Your task to perform on an android device: Open Wikipedia Image 0: 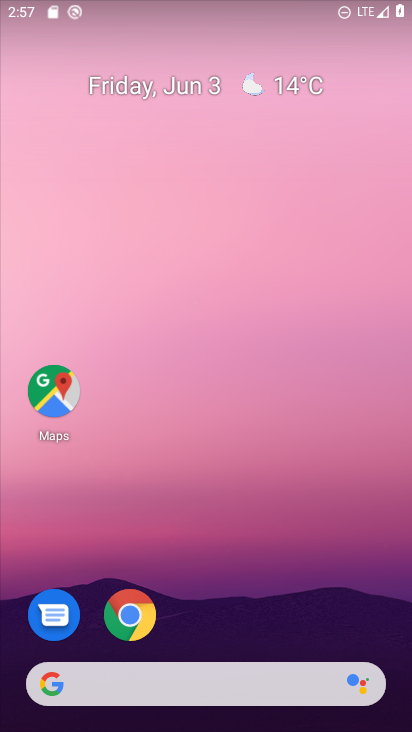
Step 0: drag from (196, 634) to (6, 206)
Your task to perform on an android device: Open Wikipedia Image 1: 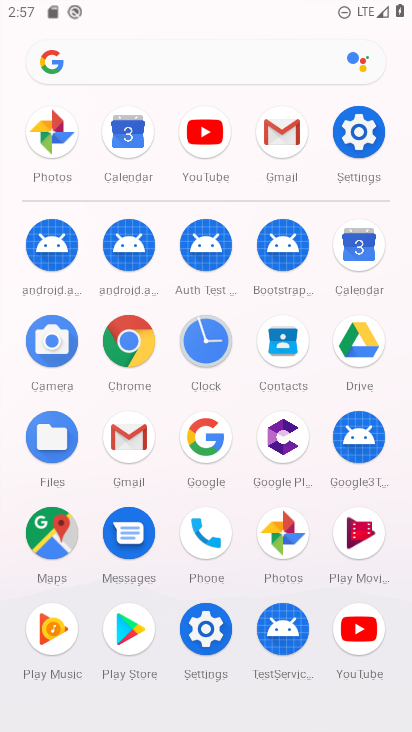
Step 1: click (103, 52)
Your task to perform on an android device: Open Wikipedia Image 2: 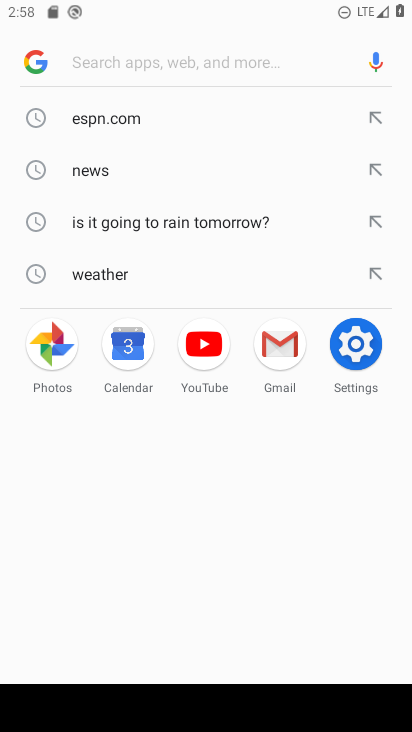
Step 2: type "Wikipedia"
Your task to perform on an android device: Open Wikipedia Image 3: 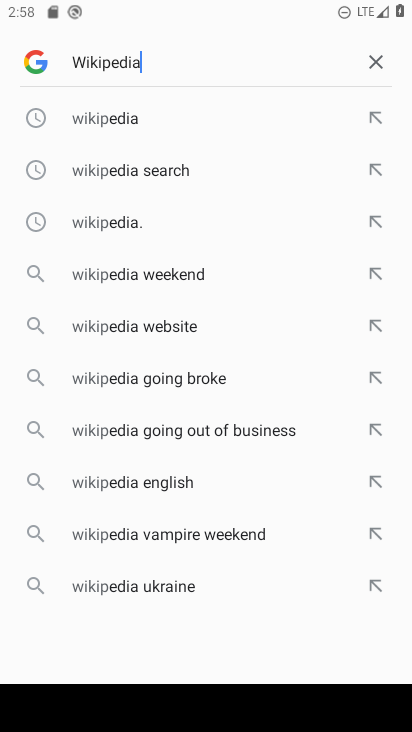
Step 3: type ""
Your task to perform on an android device: Open Wikipedia Image 4: 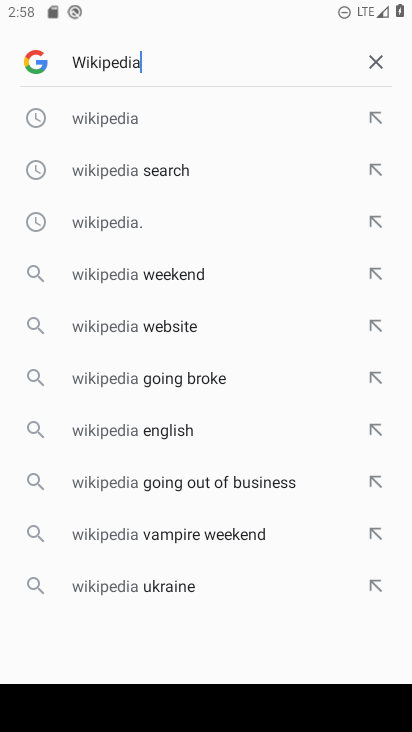
Step 4: click (111, 117)
Your task to perform on an android device: Open Wikipedia Image 5: 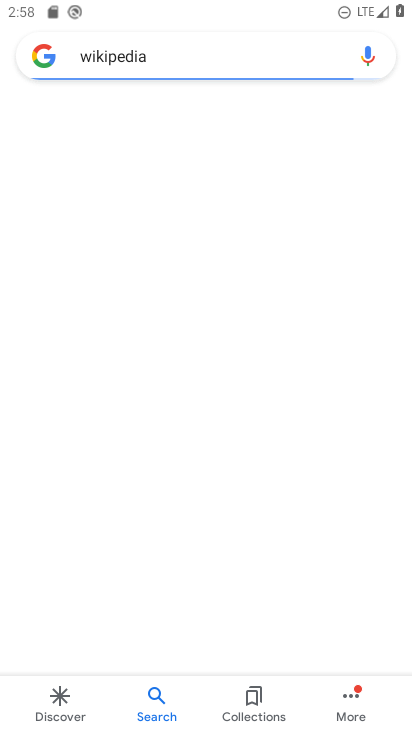
Step 5: drag from (166, 391) to (248, 59)
Your task to perform on an android device: Open Wikipedia Image 6: 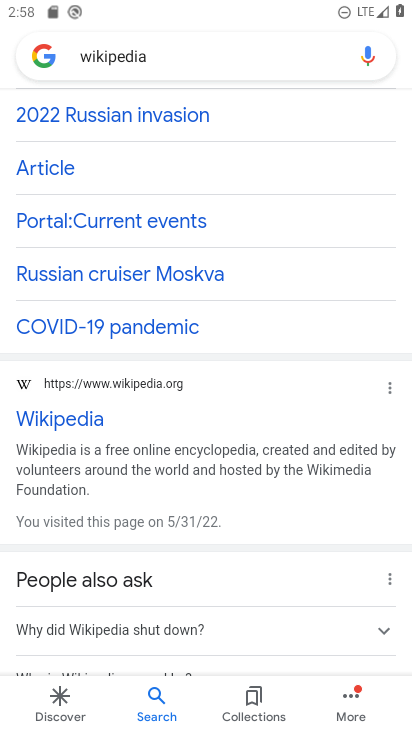
Step 6: drag from (299, 409) to (344, 730)
Your task to perform on an android device: Open Wikipedia Image 7: 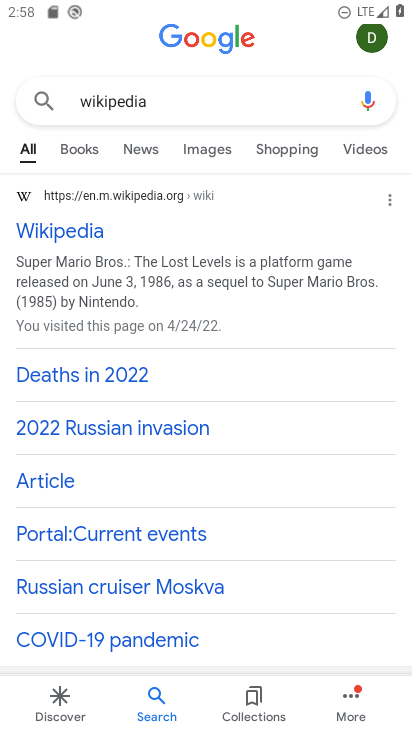
Step 7: drag from (172, 278) to (401, 94)
Your task to perform on an android device: Open Wikipedia Image 8: 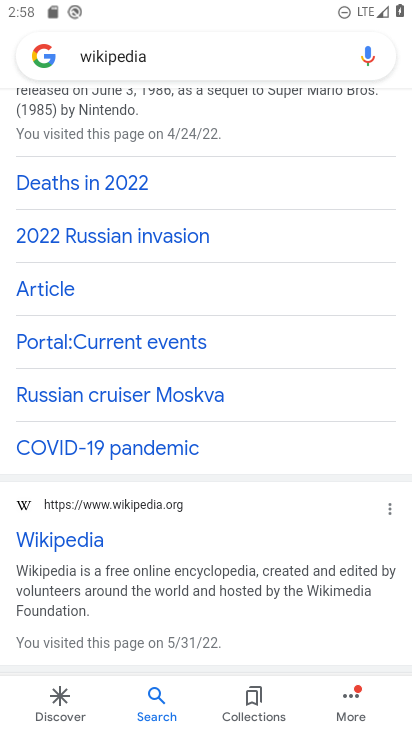
Step 8: click (36, 240)
Your task to perform on an android device: Open Wikipedia Image 9: 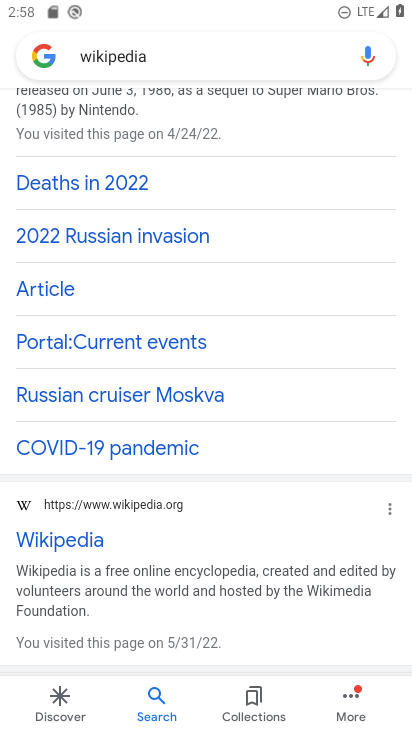
Step 9: task complete